Your task to perform on an android device: move an email to a new category in the gmail app Image 0: 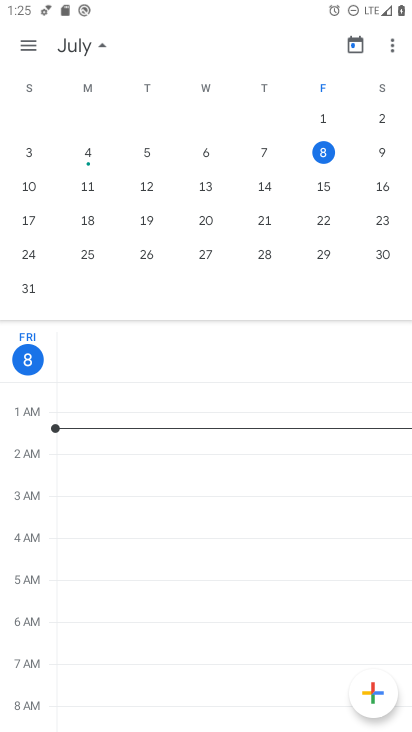
Step 0: press home button
Your task to perform on an android device: move an email to a new category in the gmail app Image 1: 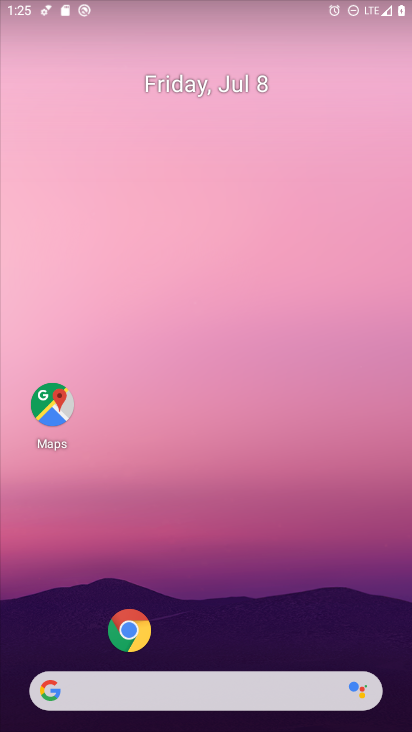
Step 1: drag from (211, 655) to (230, 124)
Your task to perform on an android device: move an email to a new category in the gmail app Image 2: 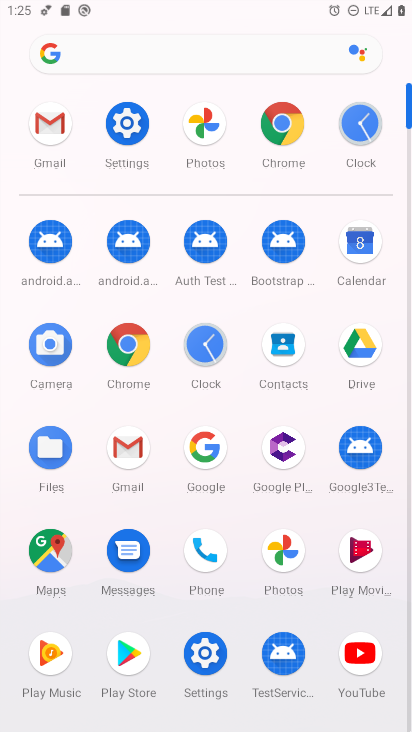
Step 2: click (135, 442)
Your task to perform on an android device: move an email to a new category in the gmail app Image 3: 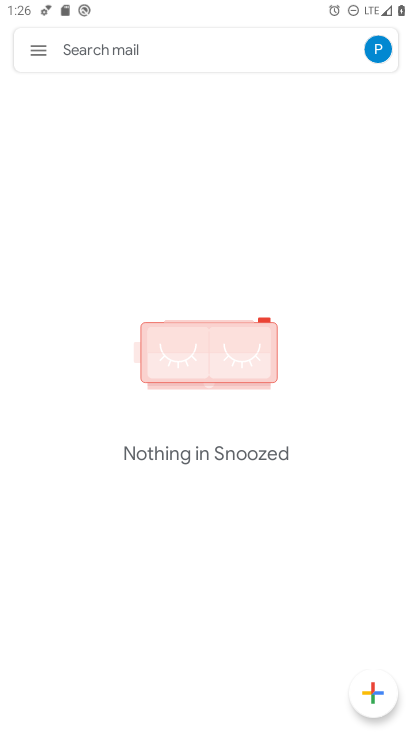
Step 3: task complete